Your task to perform on an android device: find photos in the google photos app Image 0: 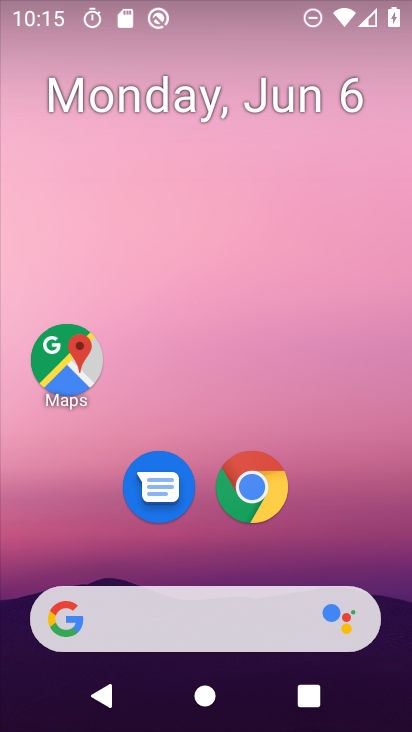
Step 0: drag from (393, 620) to (250, 47)
Your task to perform on an android device: find photos in the google photos app Image 1: 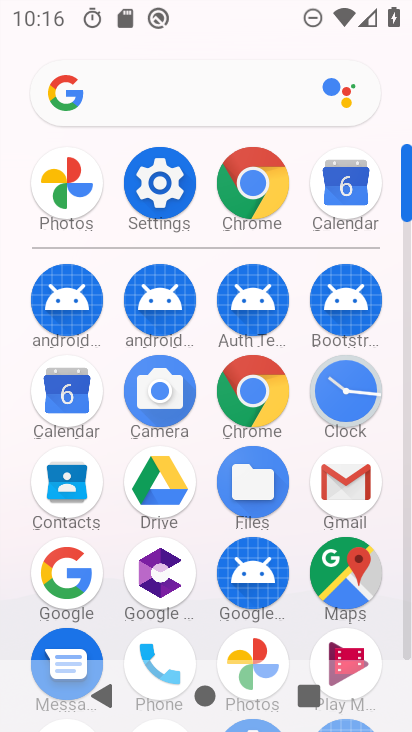
Step 1: click (259, 646)
Your task to perform on an android device: find photos in the google photos app Image 2: 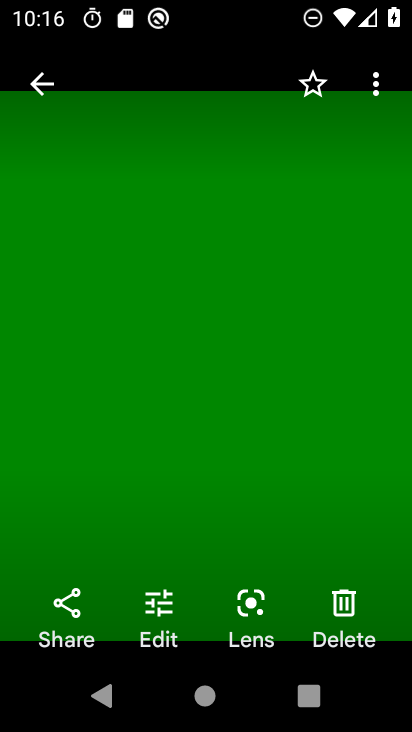
Step 2: task complete